Your task to perform on an android device: change keyboard looks Image 0: 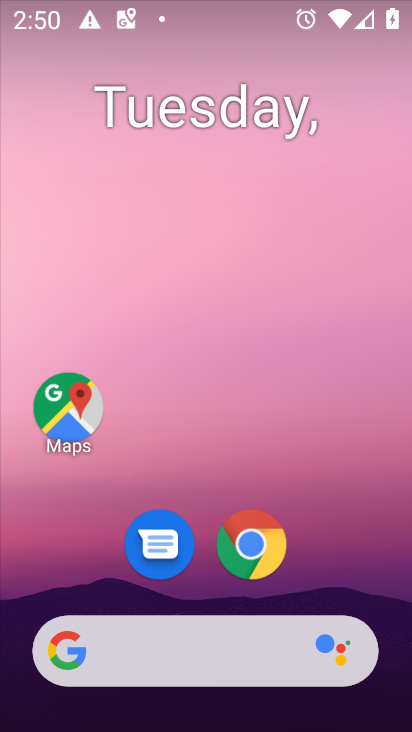
Step 0: drag from (327, 575) to (266, 61)
Your task to perform on an android device: change keyboard looks Image 1: 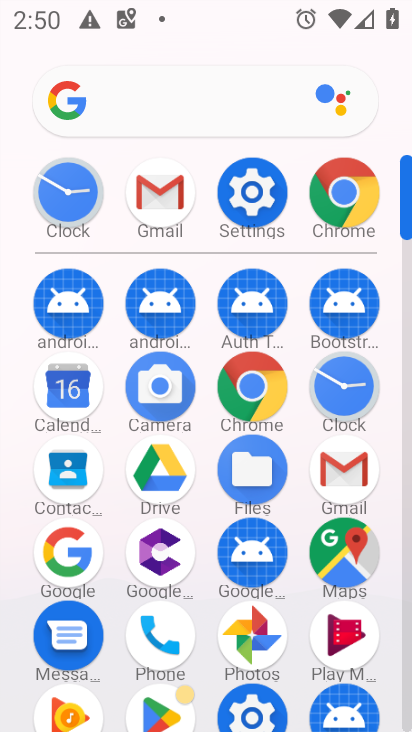
Step 1: click (255, 689)
Your task to perform on an android device: change keyboard looks Image 2: 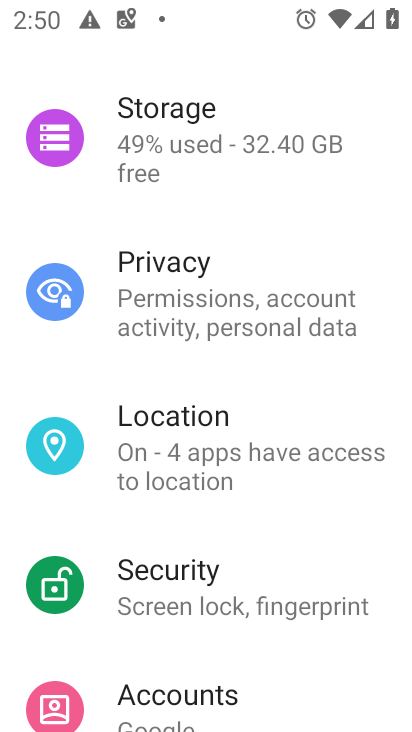
Step 2: drag from (231, 589) to (238, 77)
Your task to perform on an android device: change keyboard looks Image 3: 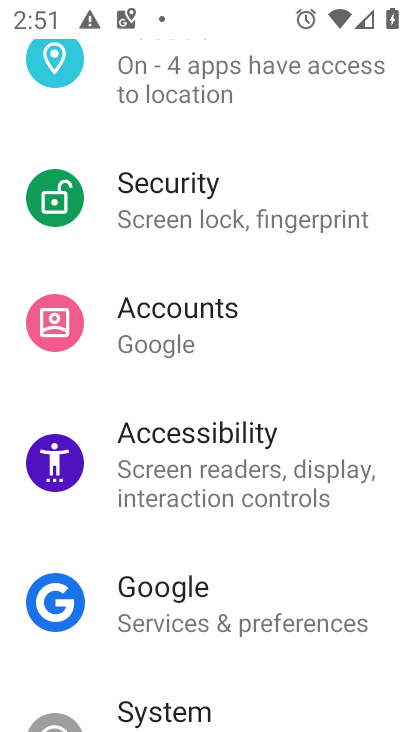
Step 3: drag from (286, 702) to (310, 90)
Your task to perform on an android device: change keyboard looks Image 4: 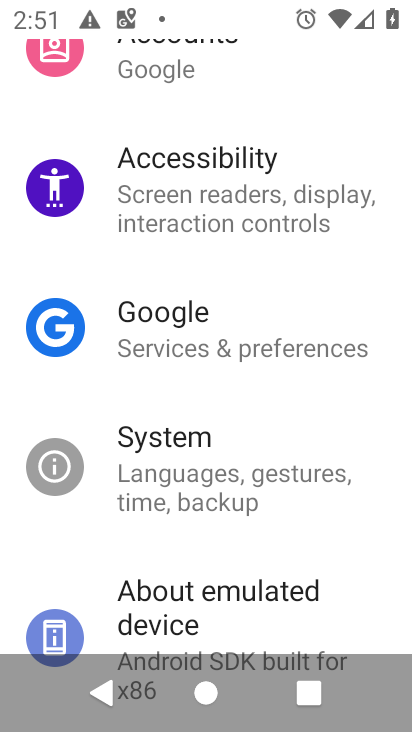
Step 4: drag from (292, 590) to (343, 115)
Your task to perform on an android device: change keyboard looks Image 5: 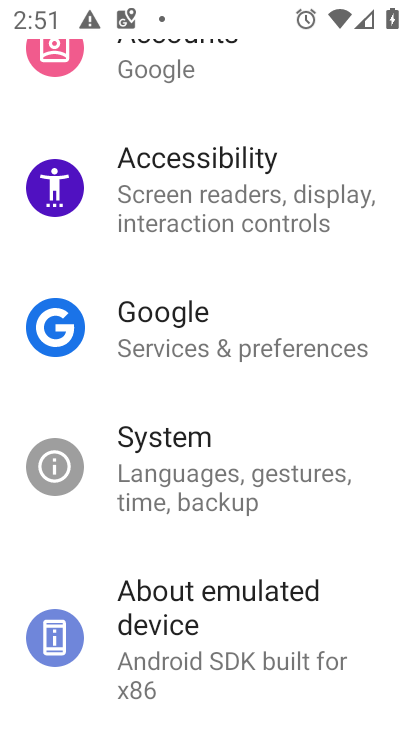
Step 5: drag from (303, 133) to (309, 406)
Your task to perform on an android device: change keyboard looks Image 6: 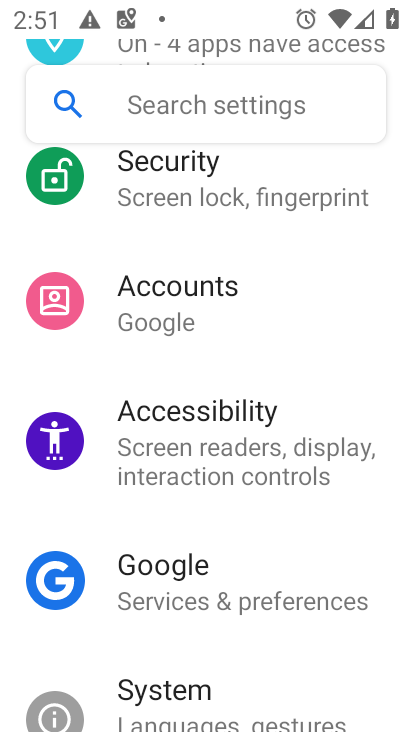
Step 6: drag from (278, 482) to (333, 80)
Your task to perform on an android device: change keyboard looks Image 7: 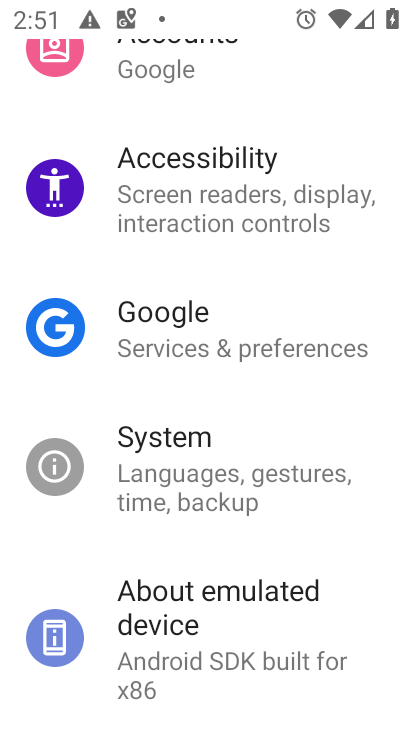
Step 7: click (245, 497)
Your task to perform on an android device: change keyboard looks Image 8: 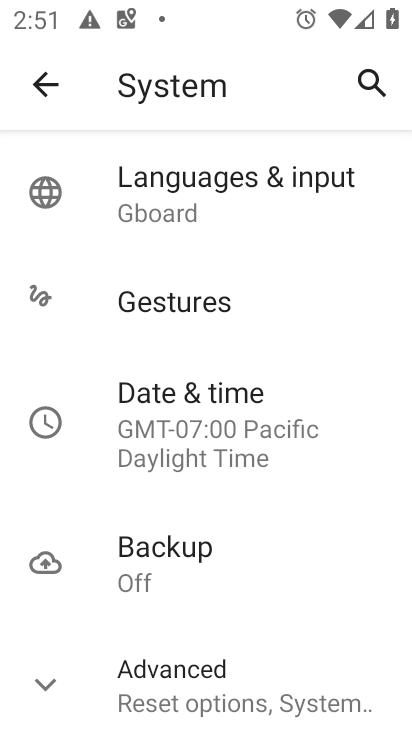
Step 8: drag from (258, 615) to (267, 109)
Your task to perform on an android device: change keyboard looks Image 9: 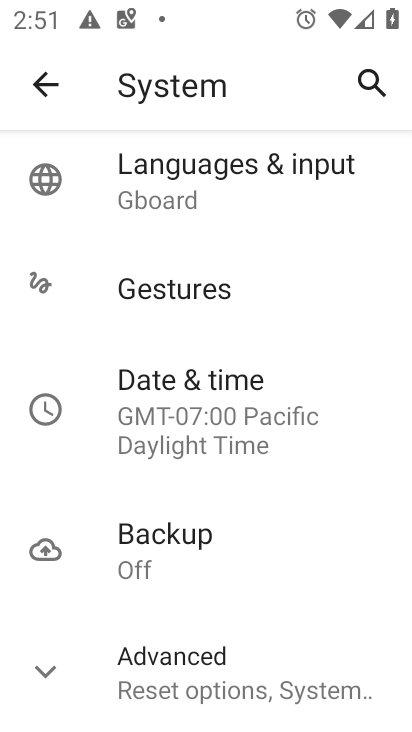
Step 9: click (229, 180)
Your task to perform on an android device: change keyboard looks Image 10: 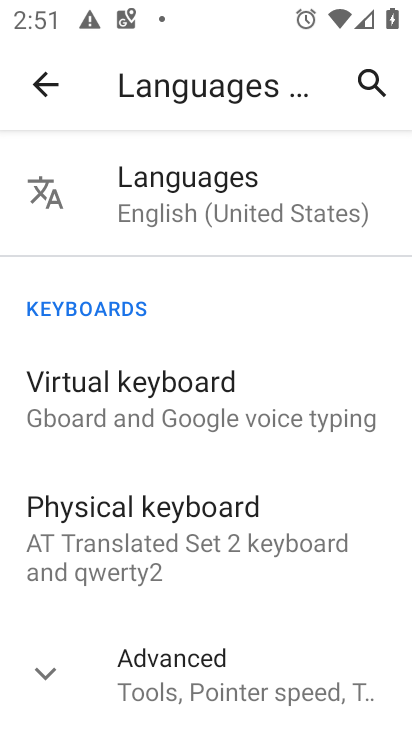
Step 10: click (189, 410)
Your task to perform on an android device: change keyboard looks Image 11: 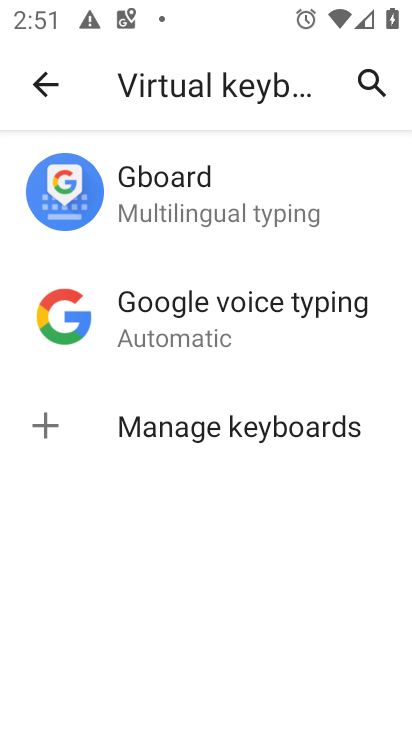
Step 11: click (171, 224)
Your task to perform on an android device: change keyboard looks Image 12: 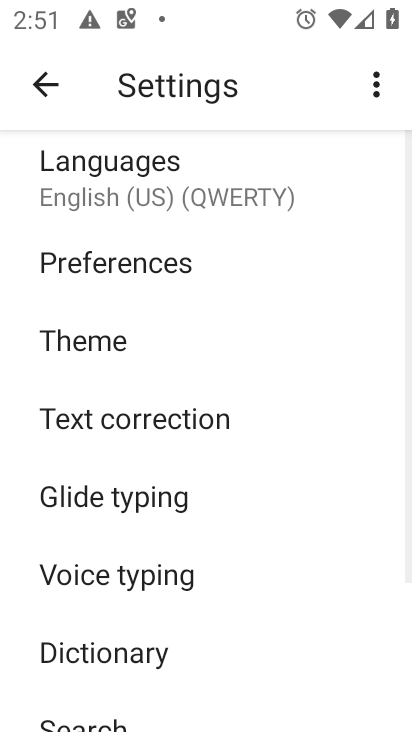
Step 12: click (105, 339)
Your task to perform on an android device: change keyboard looks Image 13: 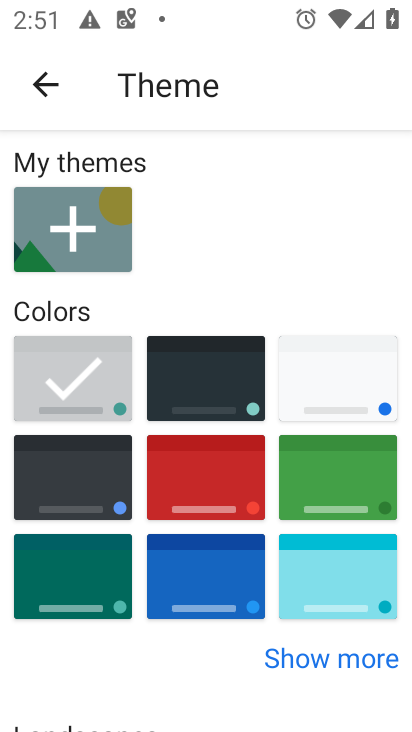
Step 13: click (353, 378)
Your task to perform on an android device: change keyboard looks Image 14: 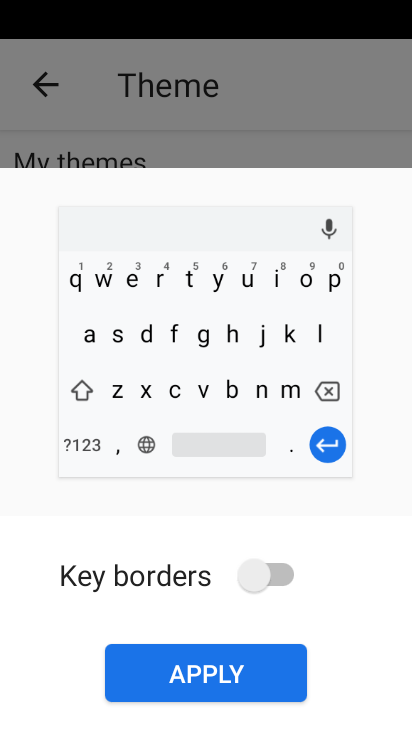
Step 14: click (264, 671)
Your task to perform on an android device: change keyboard looks Image 15: 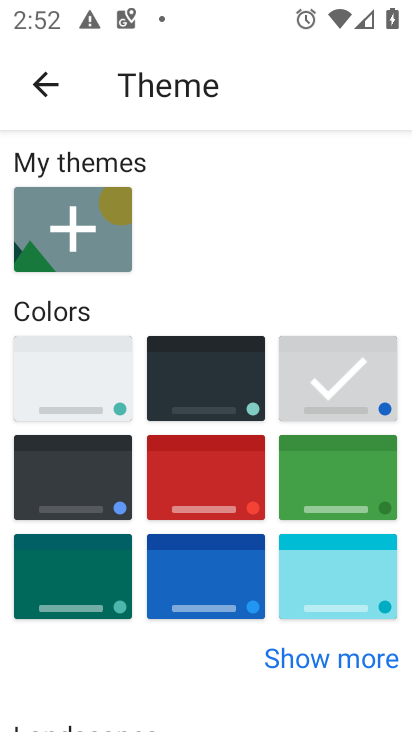
Step 15: task complete